Your task to perform on an android device: open the mobile data screen to see how much data has been used Image 0: 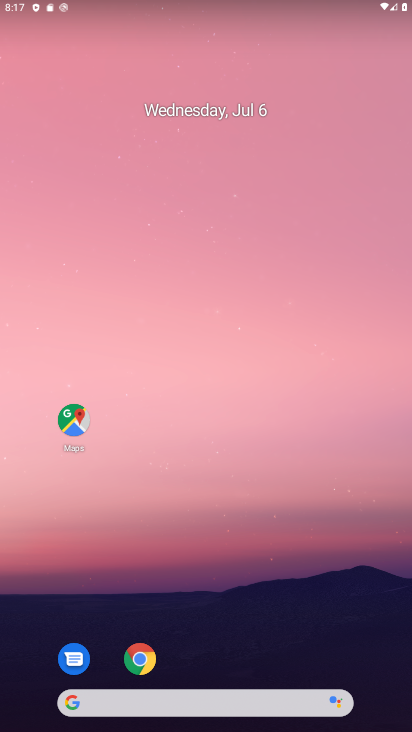
Step 0: drag from (176, 642) to (233, 182)
Your task to perform on an android device: open the mobile data screen to see how much data has been used Image 1: 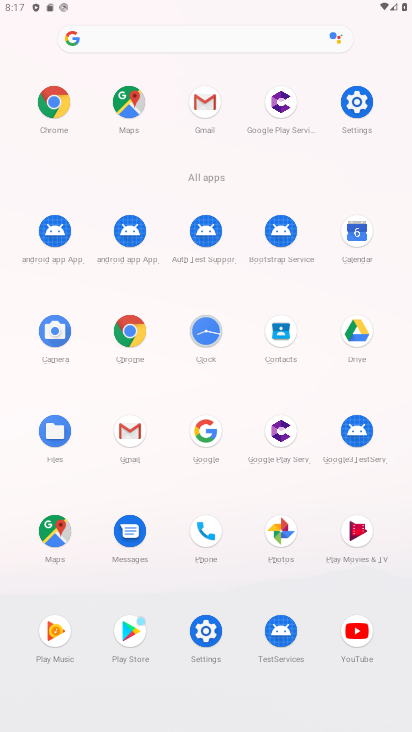
Step 1: click (357, 115)
Your task to perform on an android device: open the mobile data screen to see how much data has been used Image 2: 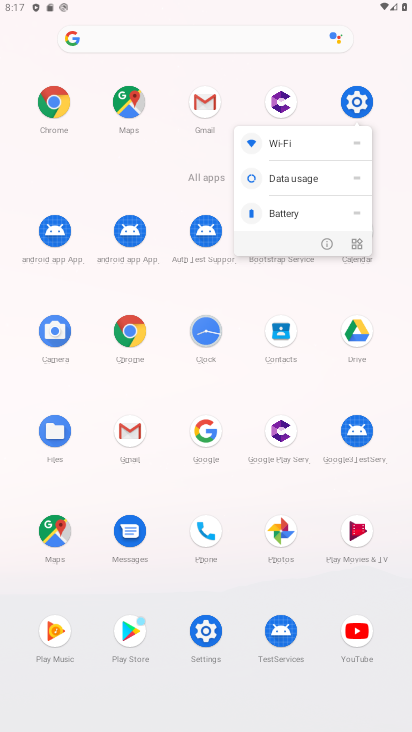
Step 2: click (272, 179)
Your task to perform on an android device: open the mobile data screen to see how much data has been used Image 3: 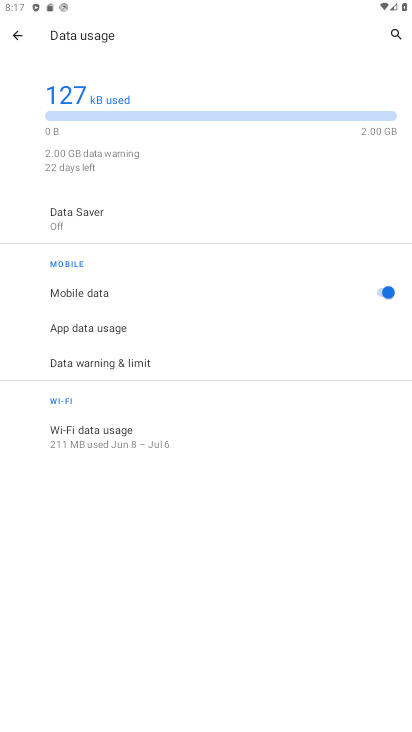
Step 3: task complete